Your task to perform on an android device: What's on my calendar tomorrow? Image 0: 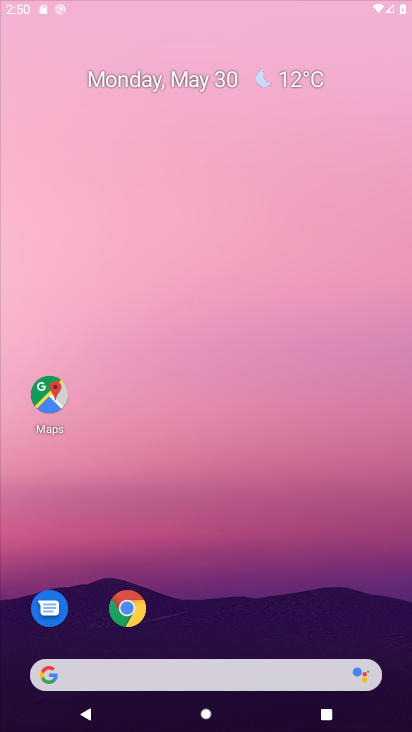
Step 0: drag from (185, 84) to (162, 1)
Your task to perform on an android device: What's on my calendar tomorrow? Image 1: 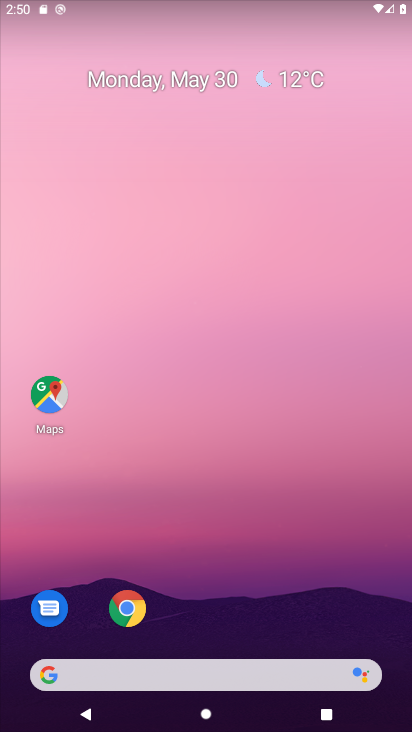
Step 1: drag from (232, 608) to (155, 3)
Your task to perform on an android device: What's on my calendar tomorrow? Image 2: 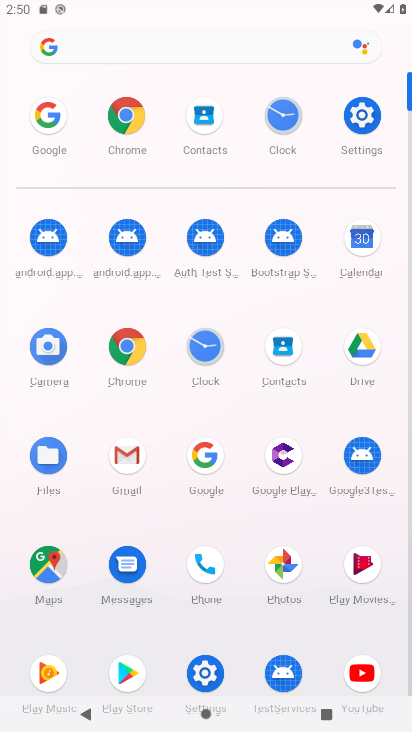
Step 2: click (363, 227)
Your task to perform on an android device: What's on my calendar tomorrow? Image 3: 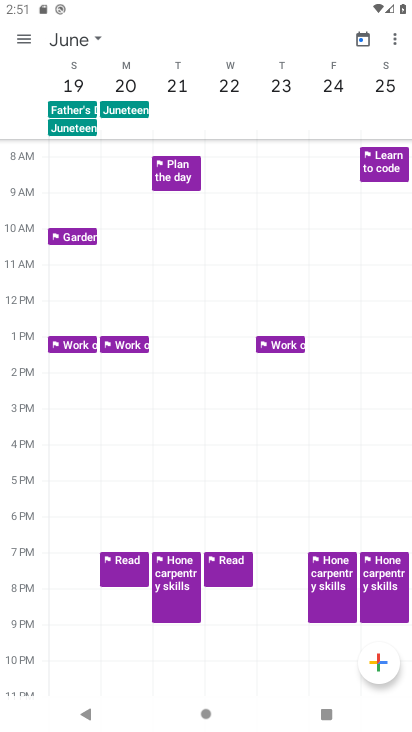
Step 3: click (76, 35)
Your task to perform on an android device: What's on my calendar tomorrow? Image 4: 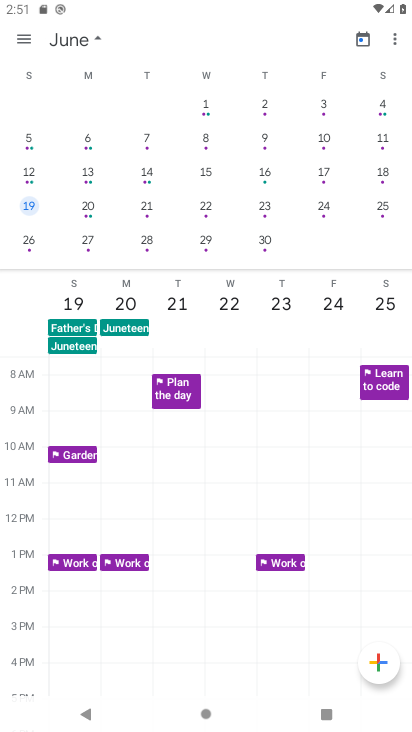
Step 4: drag from (40, 186) to (404, 222)
Your task to perform on an android device: What's on my calendar tomorrow? Image 5: 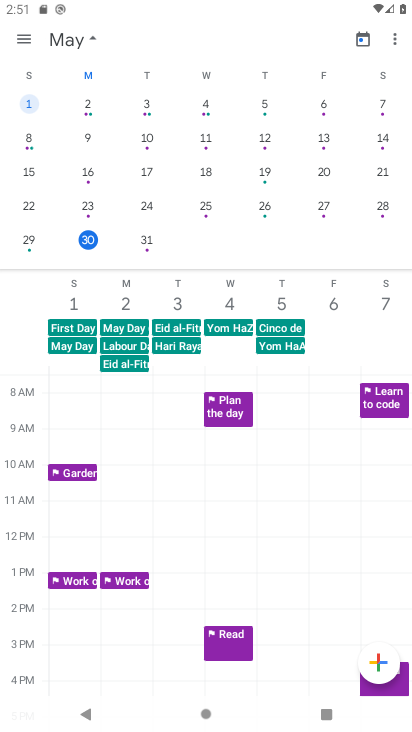
Step 5: drag from (19, 490) to (0, 330)
Your task to perform on an android device: What's on my calendar tomorrow? Image 6: 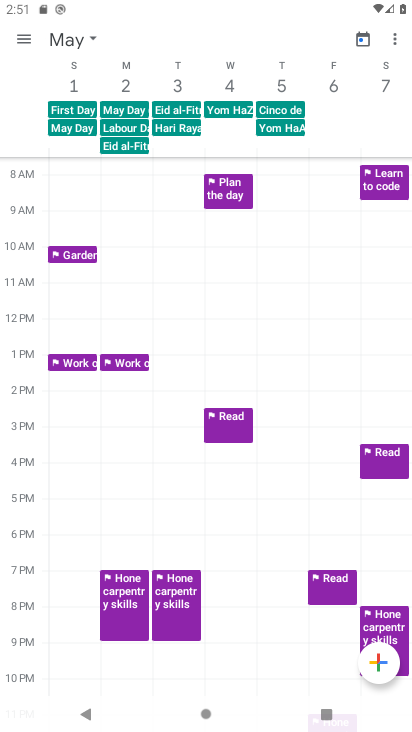
Step 6: drag from (29, 199) to (22, 460)
Your task to perform on an android device: What's on my calendar tomorrow? Image 7: 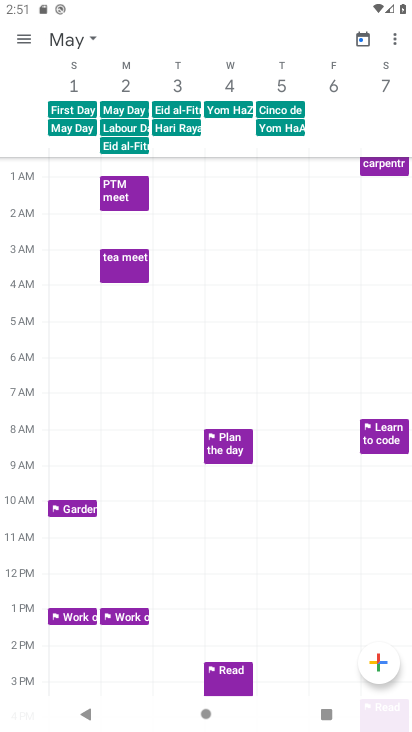
Step 7: drag from (24, 193) to (5, 623)
Your task to perform on an android device: What's on my calendar tomorrow? Image 8: 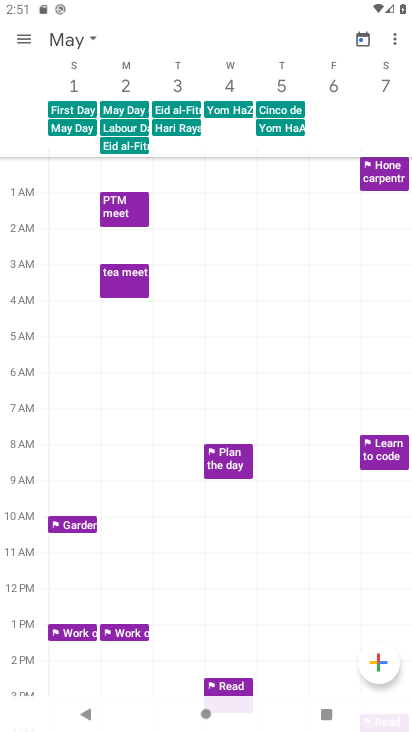
Step 8: drag from (29, 169) to (7, 618)
Your task to perform on an android device: What's on my calendar tomorrow? Image 9: 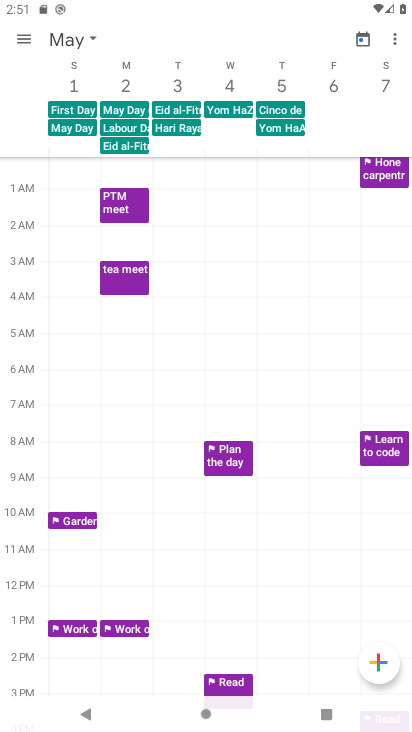
Step 9: drag from (32, 121) to (10, 414)
Your task to perform on an android device: What's on my calendar tomorrow? Image 10: 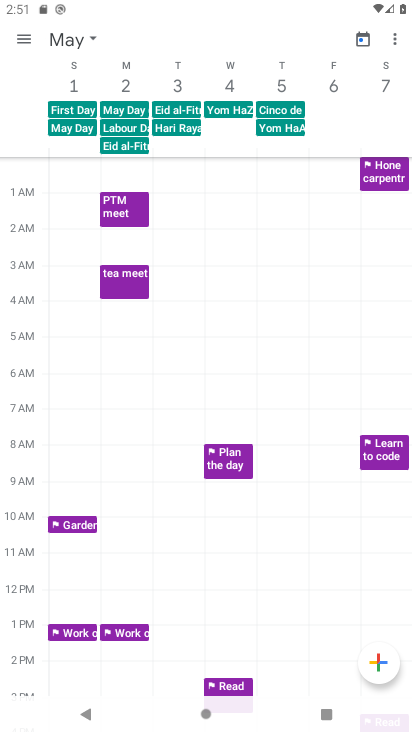
Step 10: drag from (26, 122) to (31, 419)
Your task to perform on an android device: What's on my calendar tomorrow? Image 11: 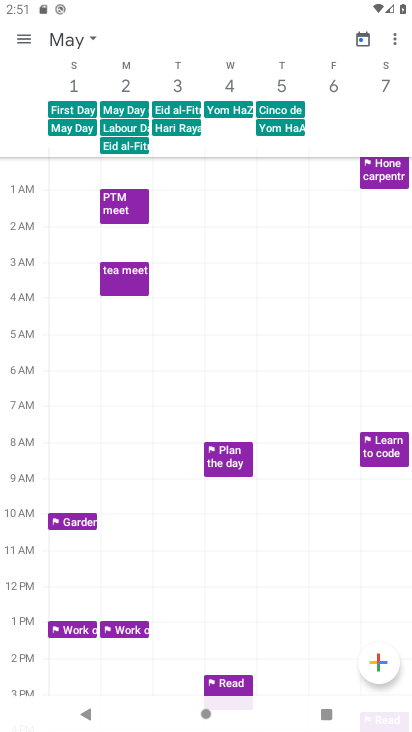
Step 11: click (90, 33)
Your task to perform on an android device: What's on my calendar tomorrow? Image 12: 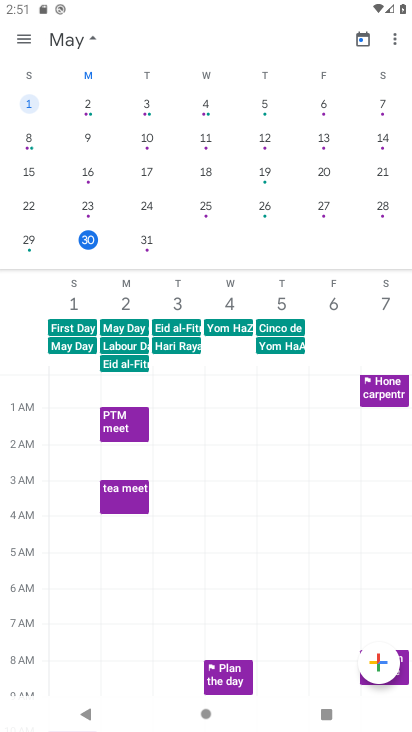
Step 12: click (148, 241)
Your task to perform on an android device: What's on my calendar tomorrow? Image 13: 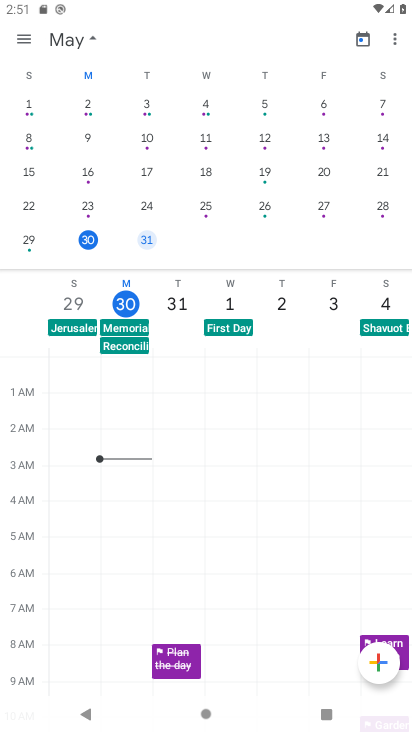
Step 13: drag from (21, 535) to (27, 103)
Your task to perform on an android device: What's on my calendar tomorrow? Image 14: 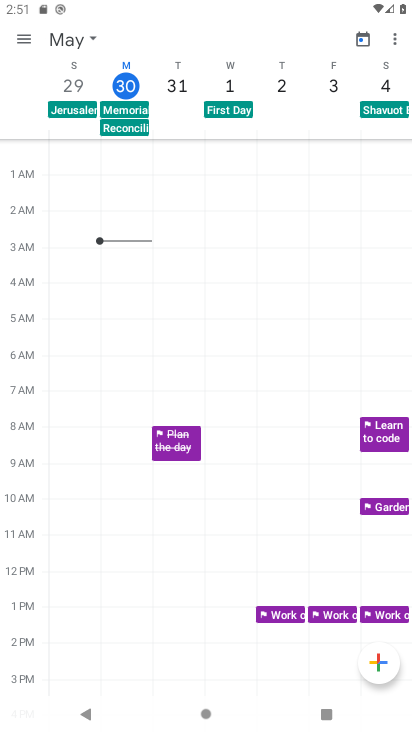
Step 14: click (176, 86)
Your task to perform on an android device: What's on my calendar tomorrow? Image 15: 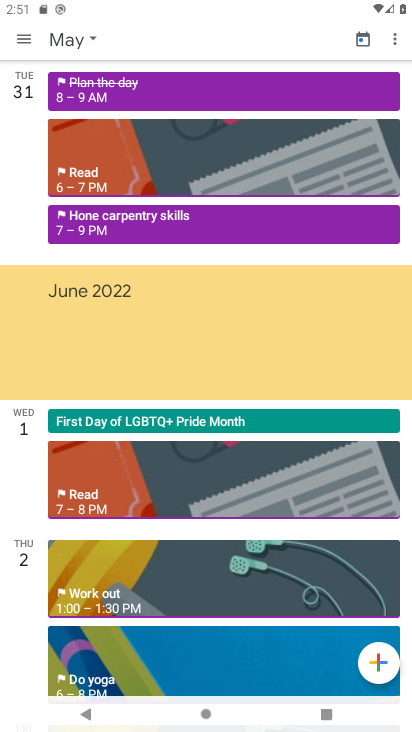
Step 15: task complete